Your task to perform on an android device: change the clock display to analog Image 0: 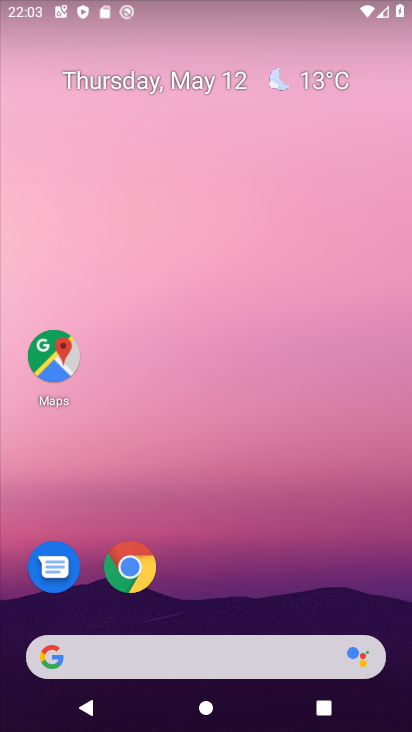
Step 0: drag from (216, 610) to (253, 52)
Your task to perform on an android device: change the clock display to analog Image 1: 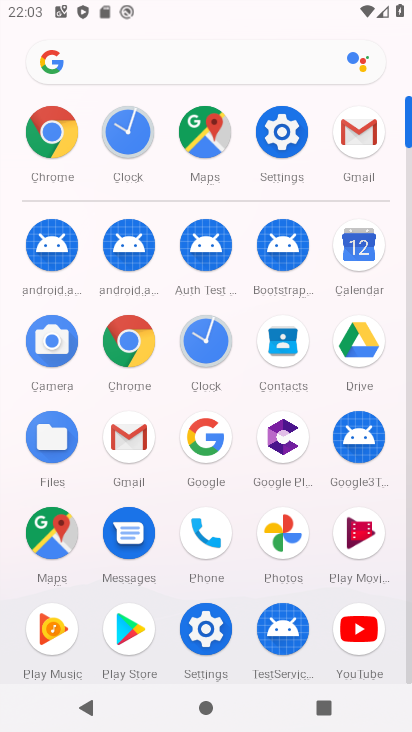
Step 1: click (206, 334)
Your task to perform on an android device: change the clock display to analog Image 2: 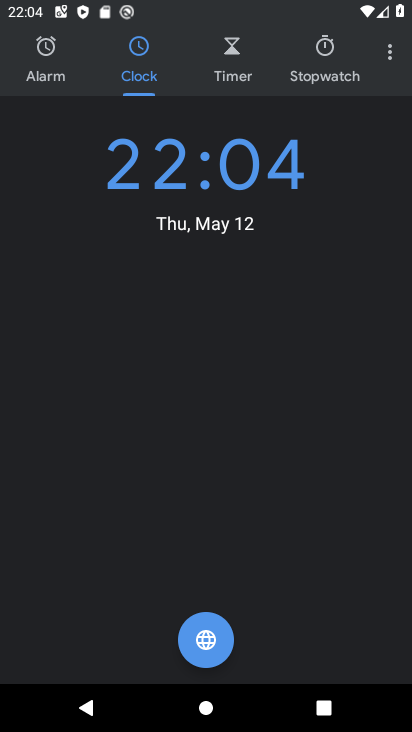
Step 2: click (392, 54)
Your task to perform on an android device: change the clock display to analog Image 3: 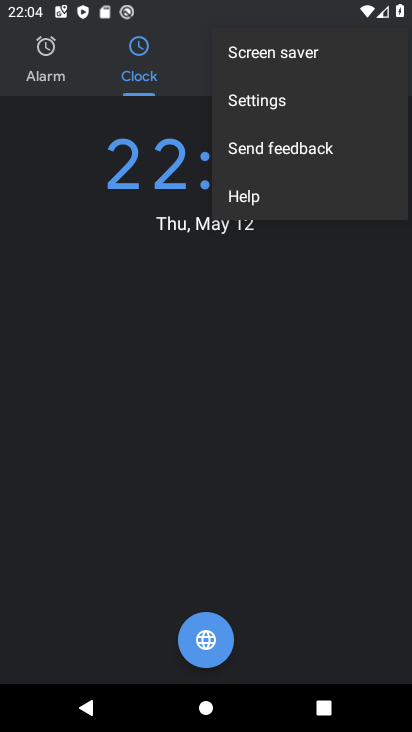
Step 3: click (291, 94)
Your task to perform on an android device: change the clock display to analog Image 4: 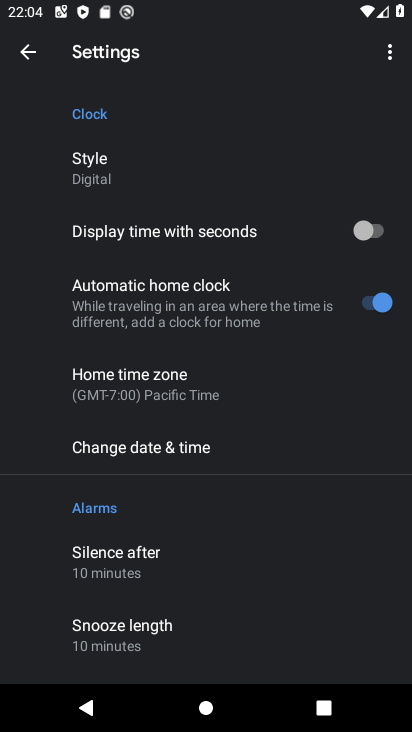
Step 4: click (129, 163)
Your task to perform on an android device: change the clock display to analog Image 5: 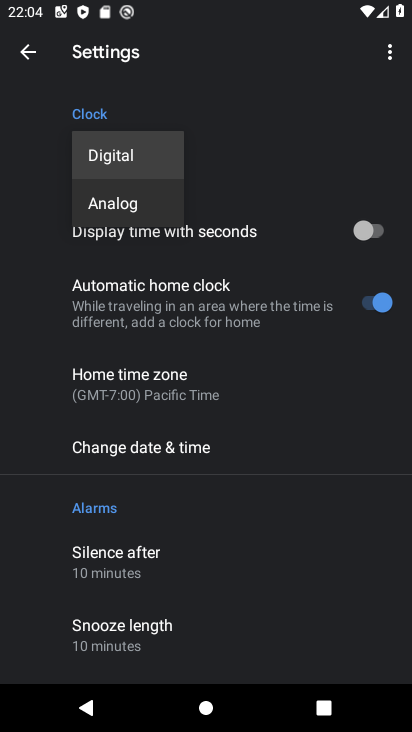
Step 5: click (136, 204)
Your task to perform on an android device: change the clock display to analog Image 6: 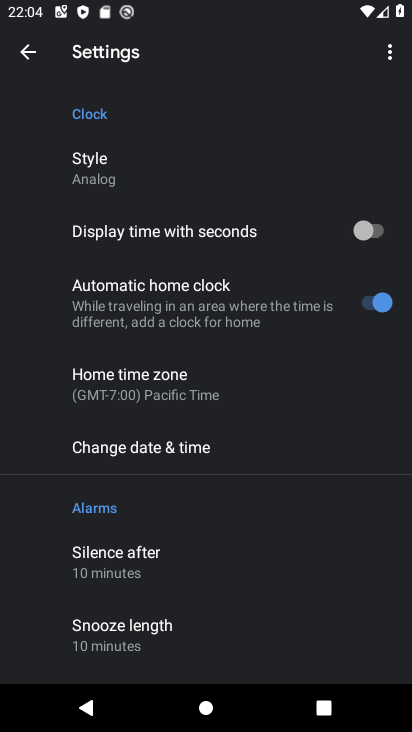
Step 6: task complete